Your task to perform on an android device: set default search engine in the chrome app Image 0: 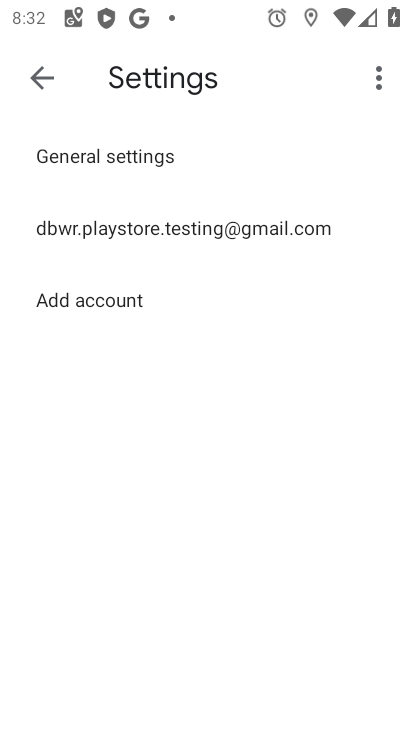
Step 0: press home button
Your task to perform on an android device: set default search engine in the chrome app Image 1: 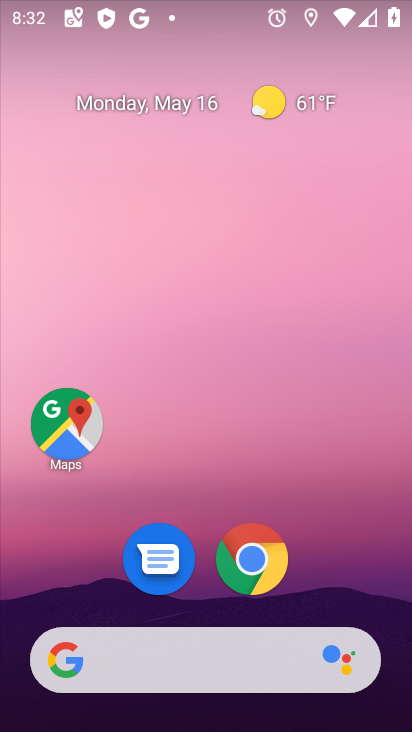
Step 1: drag from (374, 576) to (376, 132)
Your task to perform on an android device: set default search engine in the chrome app Image 2: 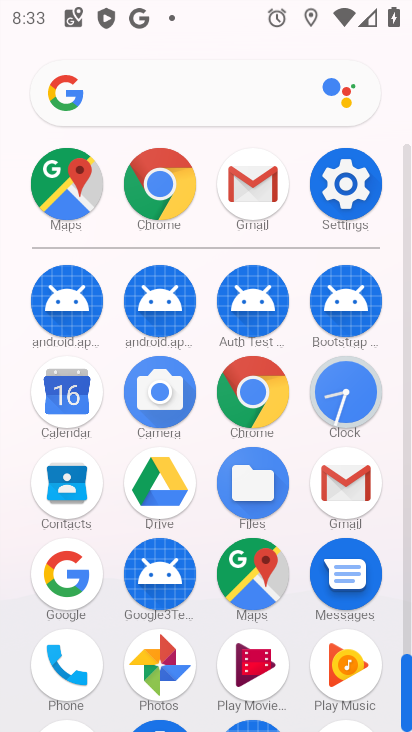
Step 2: click (252, 391)
Your task to perform on an android device: set default search engine in the chrome app Image 3: 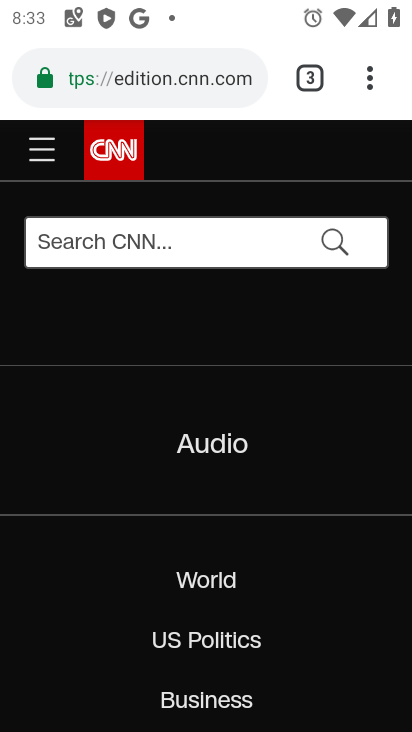
Step 3: drag from (373, 84) to (118, 618)
Your task to perform on an android device: set default search engine in the chrome app Image 4: 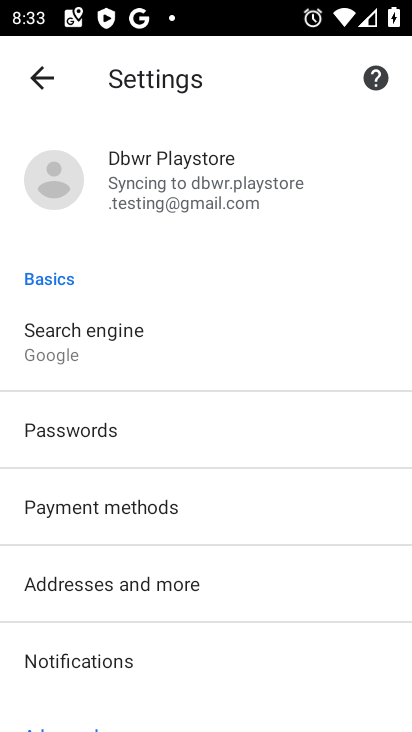
Step 4: click (113, 336)
Your task to perform on an android device: set default search engine in the chrome app Image 5: 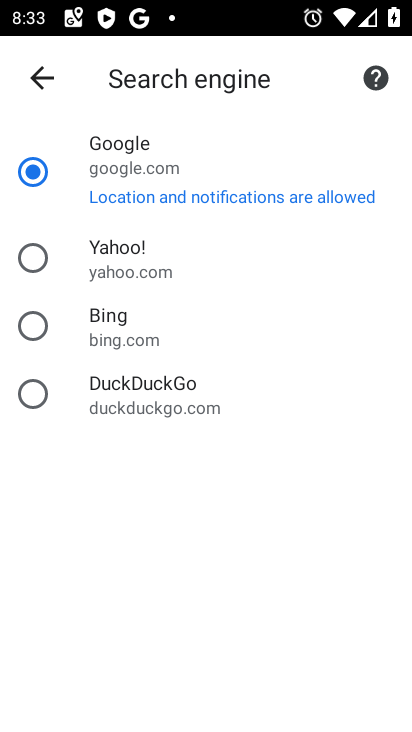
Step 5: click (33, 253)
Your task to perform on an android device: set default search engine in the chrome app Image 6: 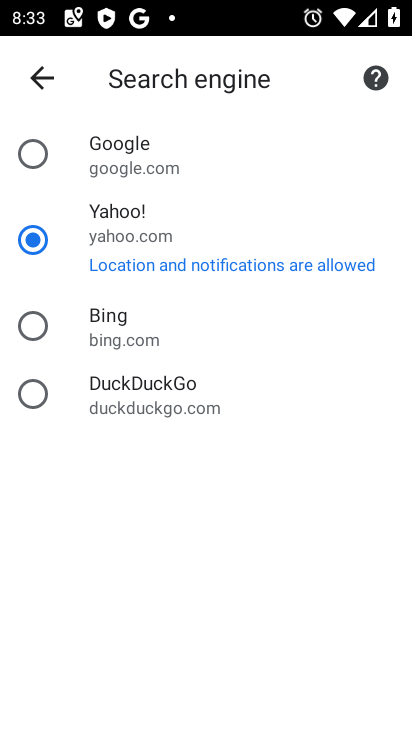
Step 6: task complete